Your task to perform on an android device: turn on wifi Image 0: 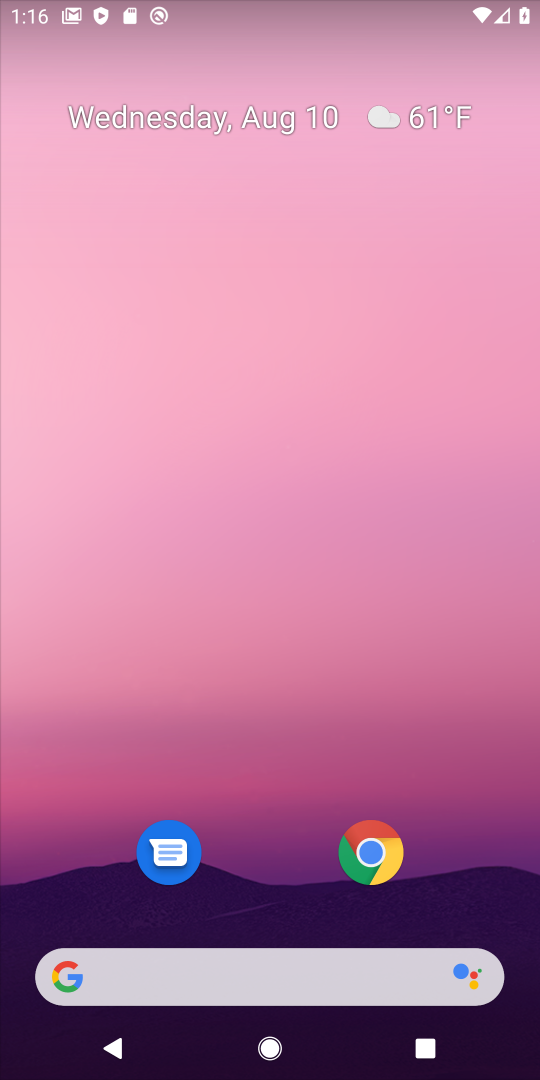
Step 0: drag from (469, 820) to (362, 98)
Your task to perform on an android device: turn on wifi Image 1: 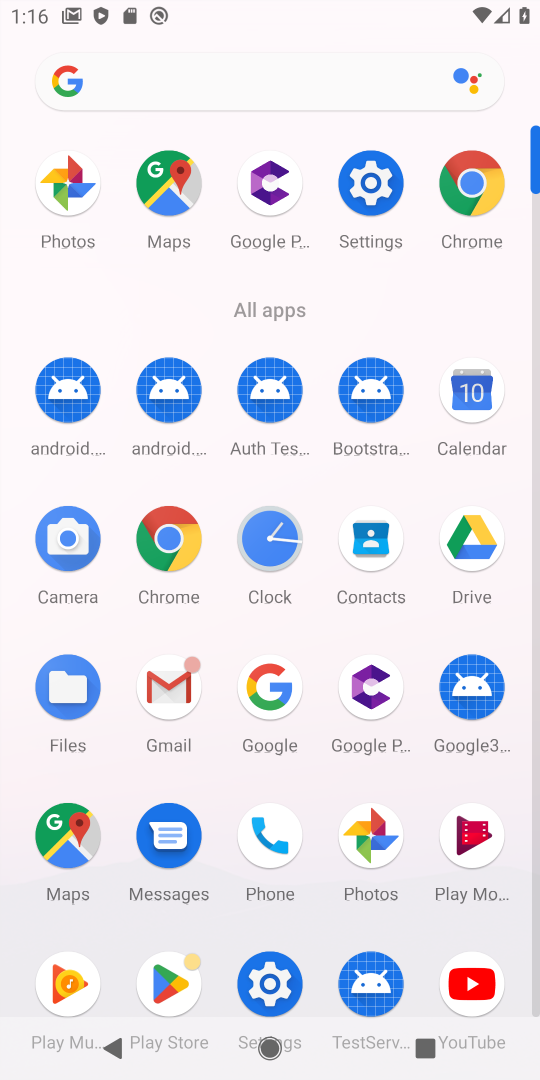
Step 1: click (376, 210)
Your task to perform on an android device: turn on wifi Image 2: 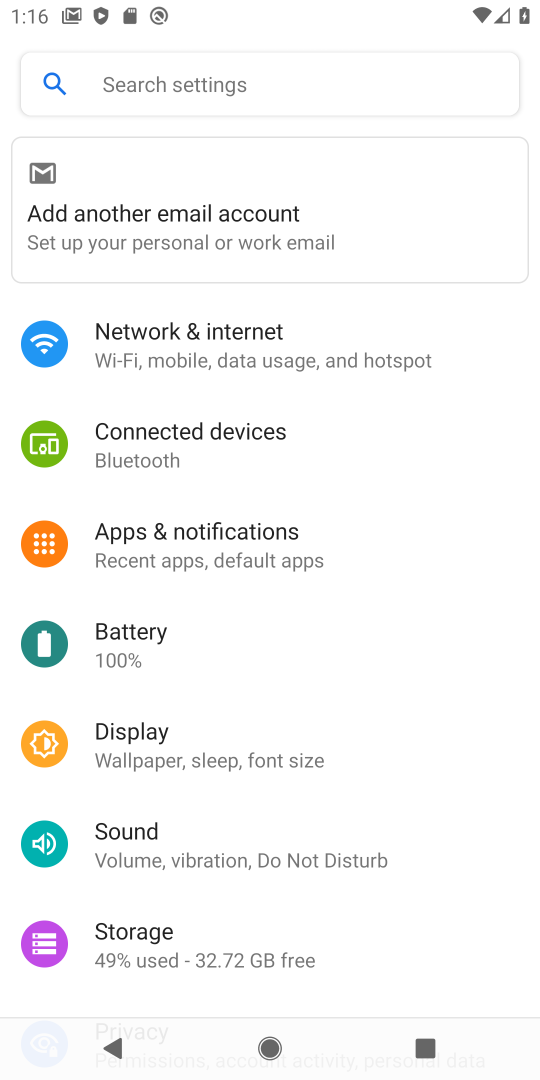
Step 2: click (242, 348)
Your task to perform on an android device: turn on wifi Image 3: 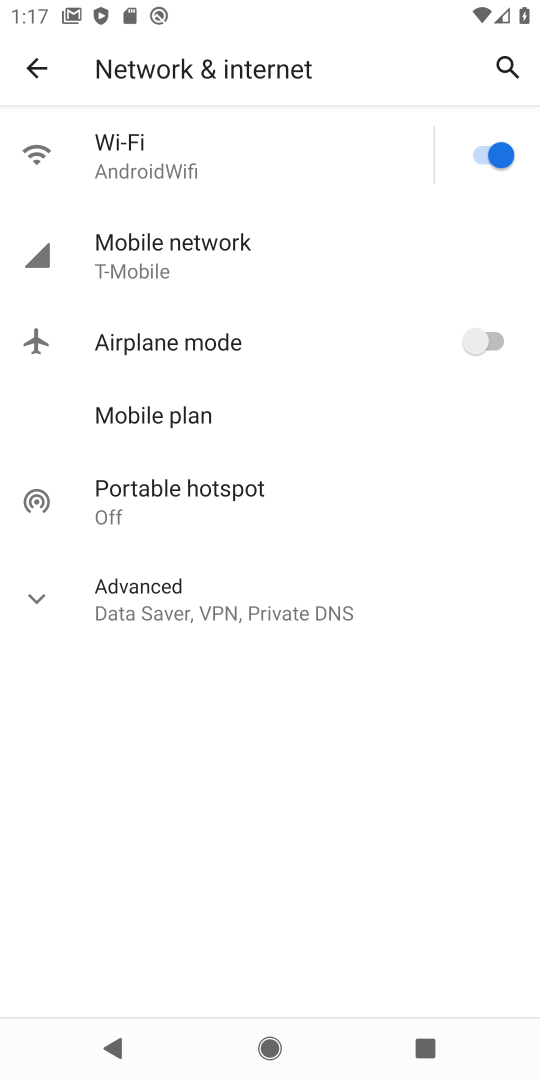
Step 3: click (294, 162)
Your task to perform on an android device: turn on wifi Image 4: 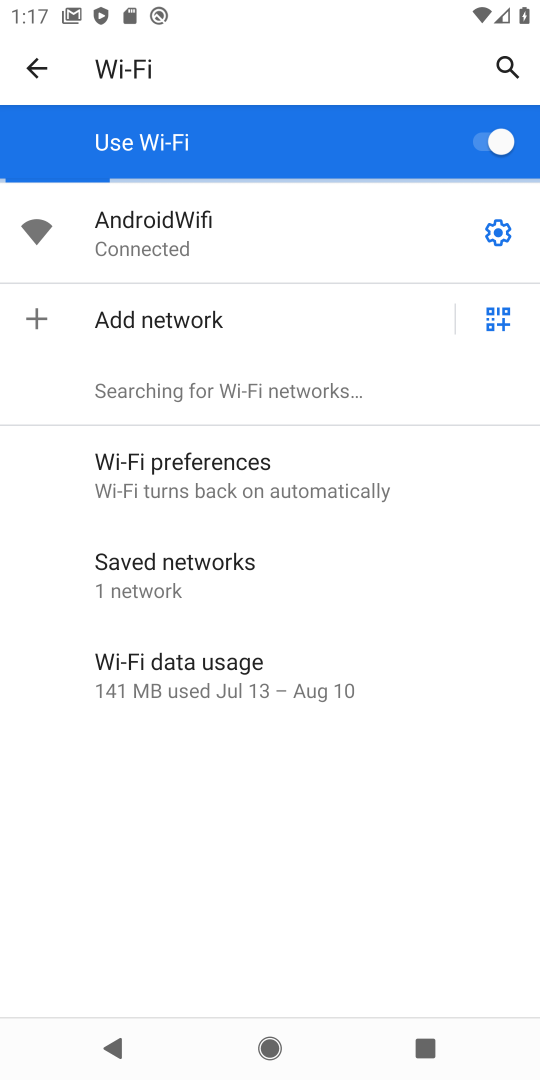
Step 4: task complete